Your task to perform on an android device: clear history in the chrome app Image 0: 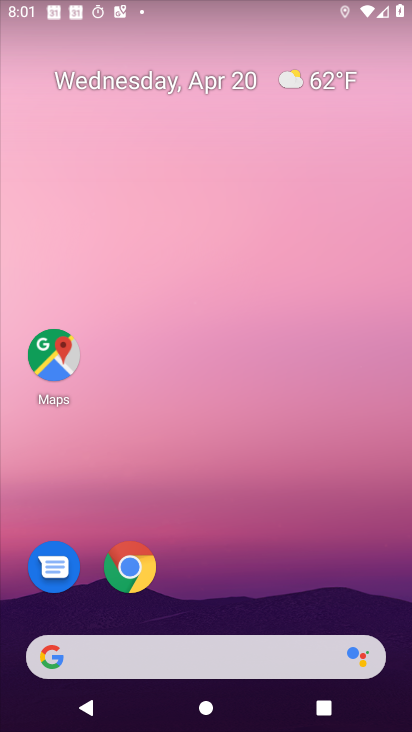
Step 0: click (134, 570)
Your task to perform on an android device: clear history in the chrome app Image 1: 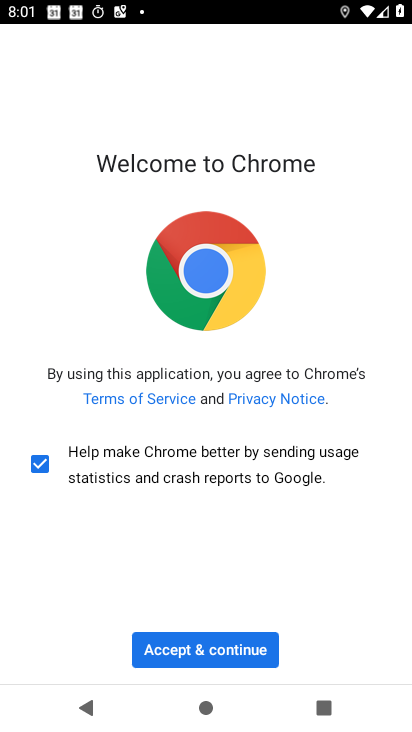
Step 1: click (194, 635)
Your task to perform on an android device: clear history in the chrome app Image 2: 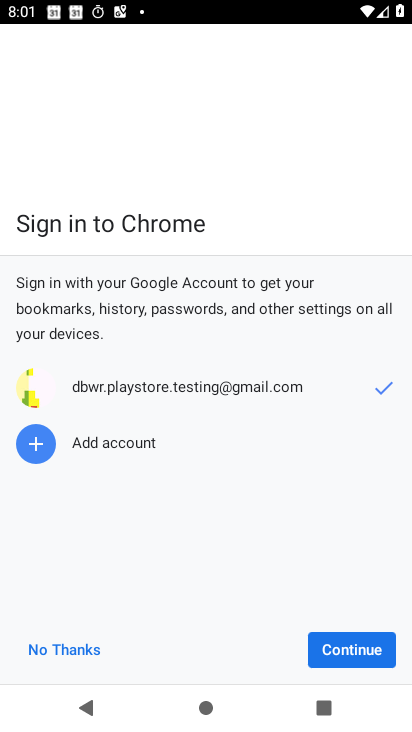
Step 2: click (55, 655)
Your task to perform on an android device: clear history in the chrome app Image 3: 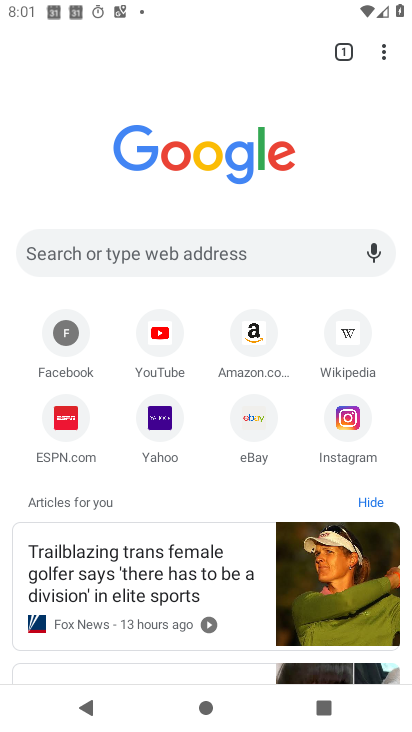
Step 3: click (382, 52)
Your task to perform on an android device: clear history in the chrome app Image 4: 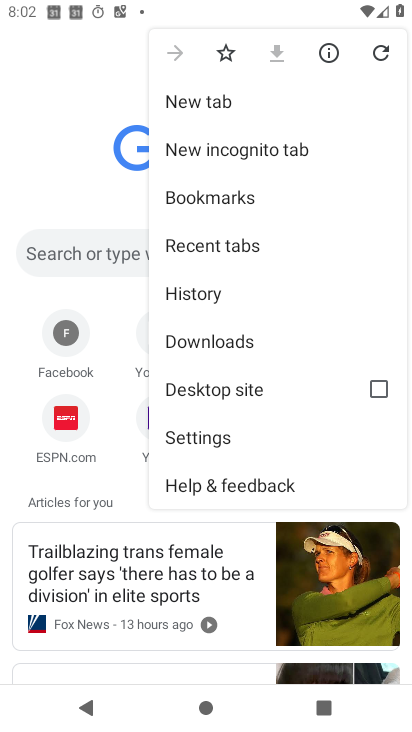
Step 4: click (202, 299)
Your task to perform on an android device: clear history in the chrome app Image 5: 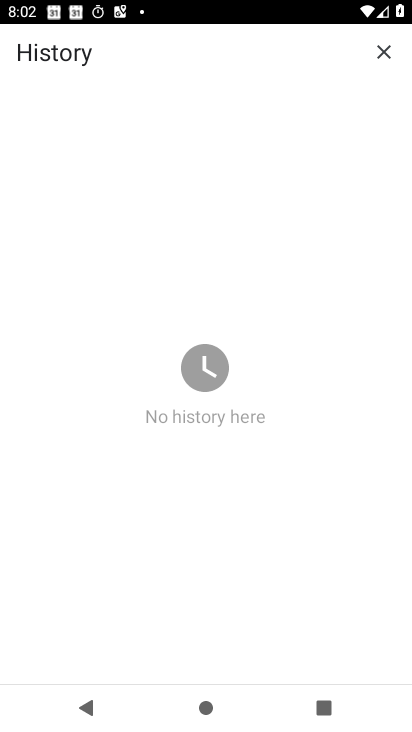
Step 5: task complete